Your task to perform on an android device: turn on notifications settings in the gmail app Image 0: 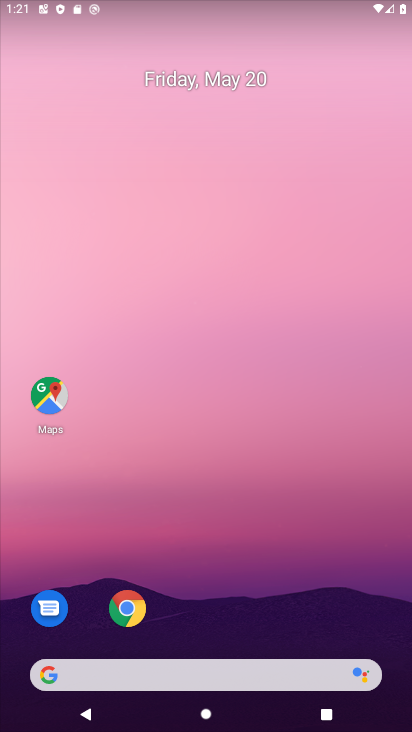
Step 0: drag from (169, 520) to (250, 134)
Your task to perform on an android device: turn on notifications settings in the gmail app Image 1: 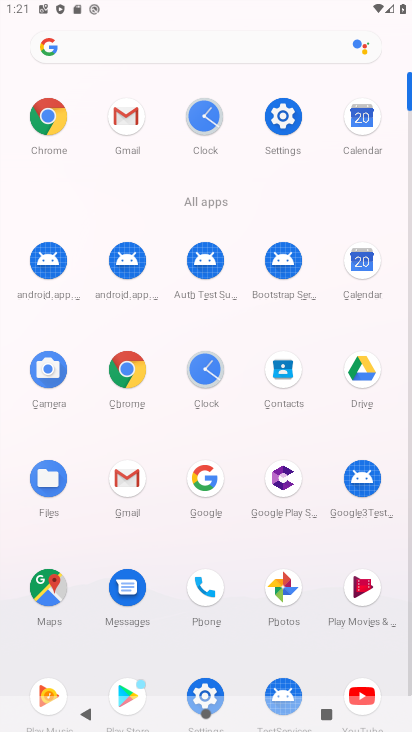
Step 1: click (120, 128)
Your task to perform on an android device: turn on notifications settings in the gmail app Image 2: 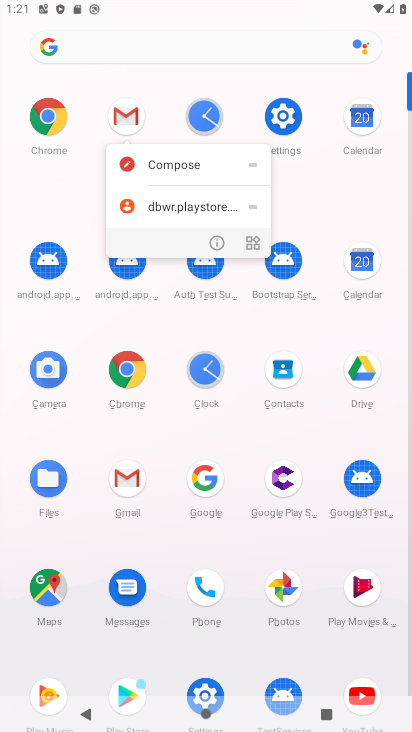
Step 2: click (222, 243)
Your task to perform on an android device: turn on notifications settings in the gmail app Image 3: 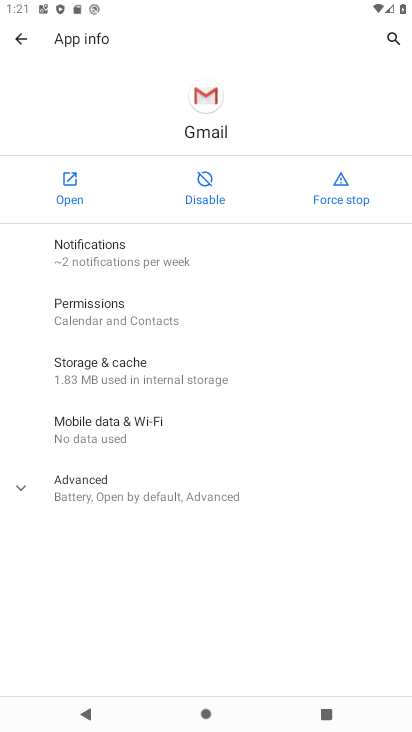
Step 3: click (172, 240)
Your task to perform on an android device: turn on notifications settings in the gmail app Image 4: 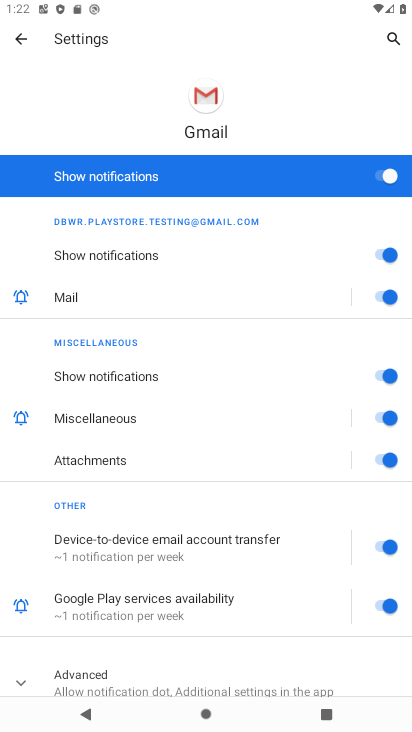
Step 4: task complete